Your task to perform on an android device: toggle translation in the chrome app Image 0: 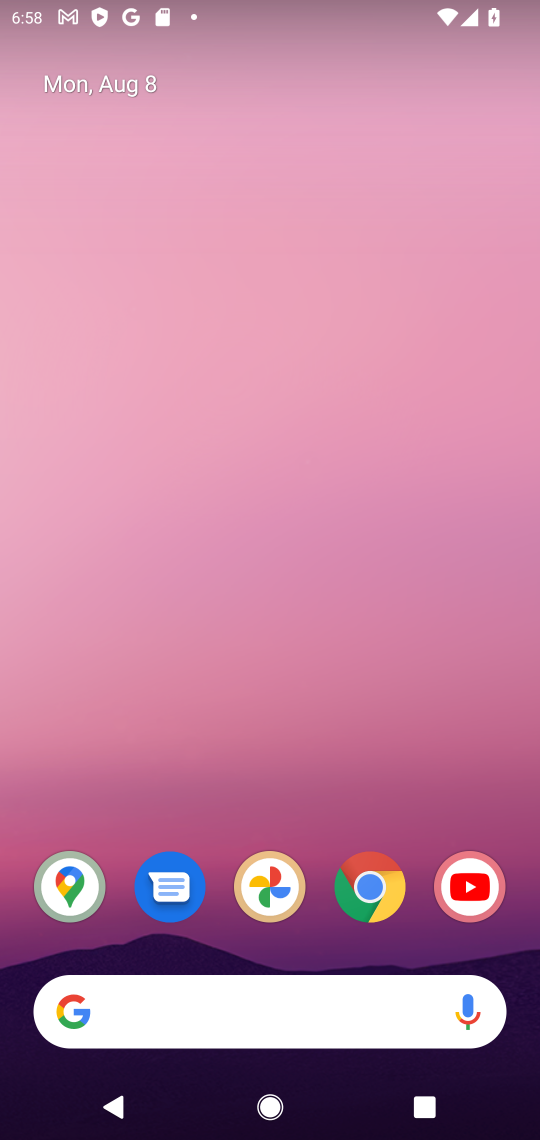
Step 0: click (351, 886)
Your task to perform on an android device: toggle translation in the chrome app Image 1: 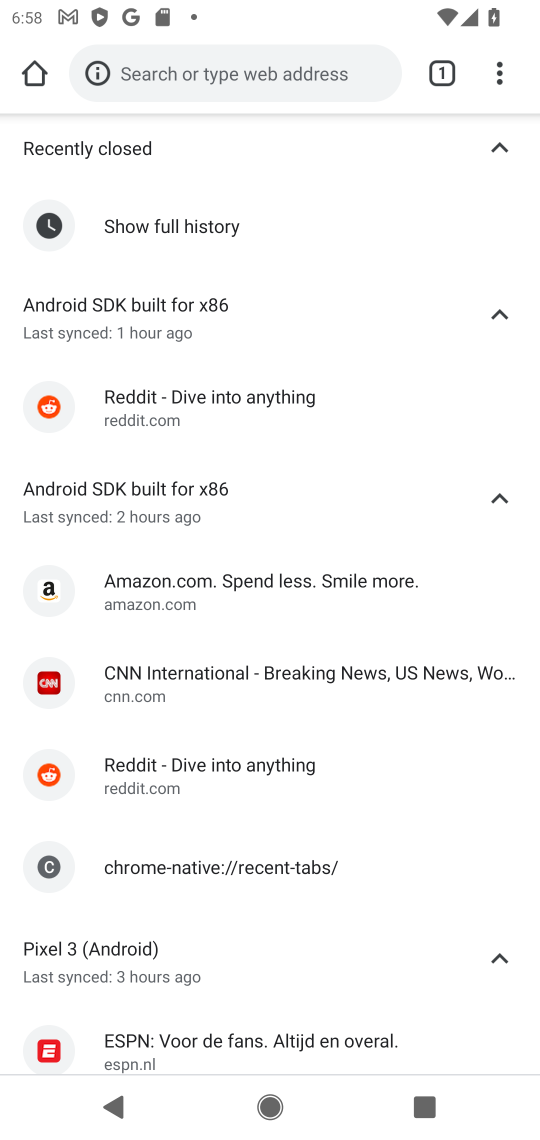
Step 1: click (500, 83)
Your task to perform on an android device: toggle translation in the chrome app Image 2: 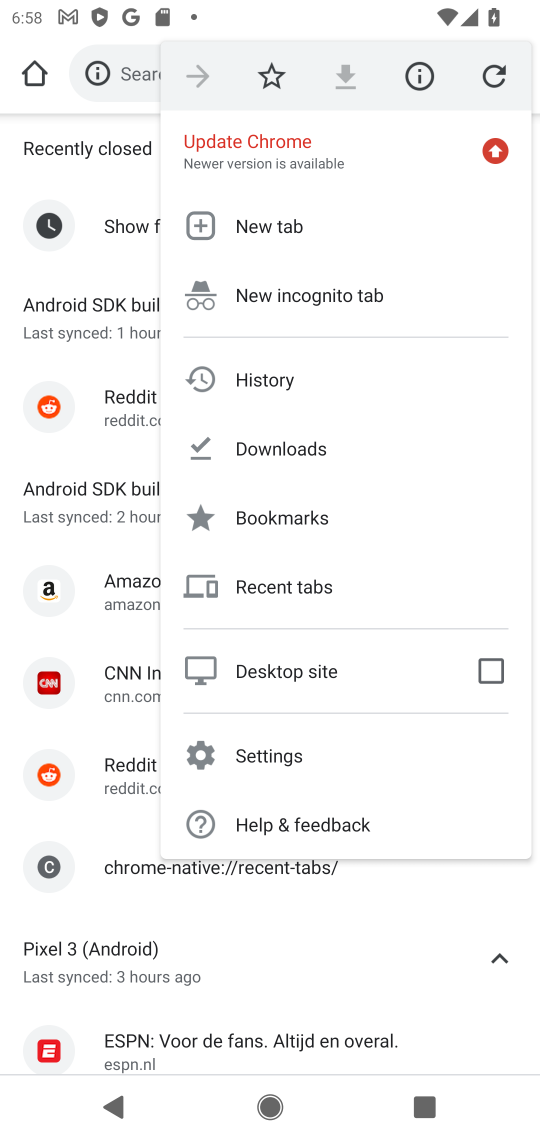
Step 2: click (334, 765)
Your task to perform on an android device: toggle translation in the chrome app Image 3: 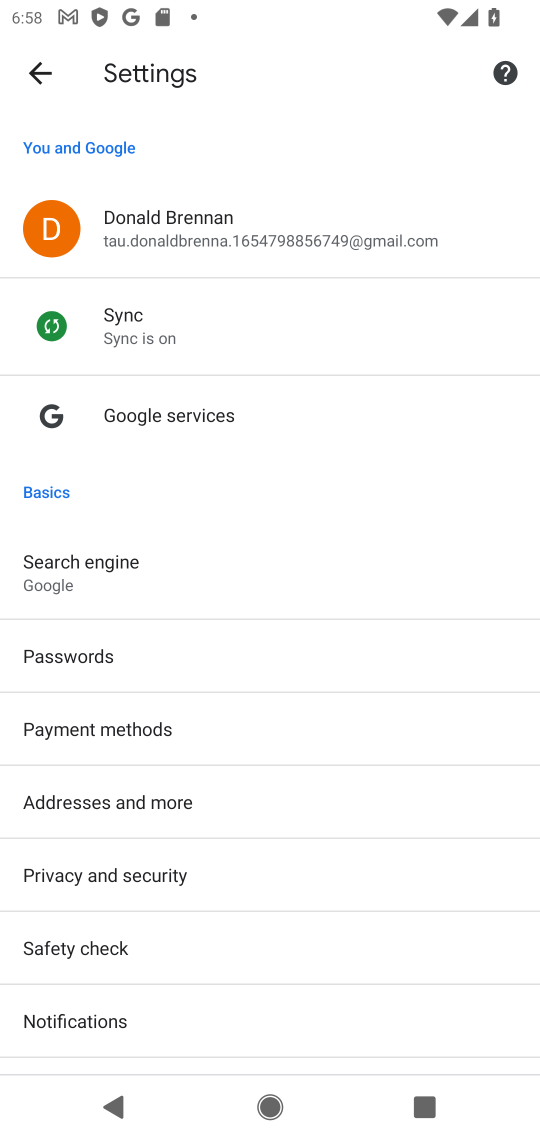
Step 3: drag from (234, 1030) to (190, 283)
Your task to perform on an android device: toggle translation in the chrome app Image 4: 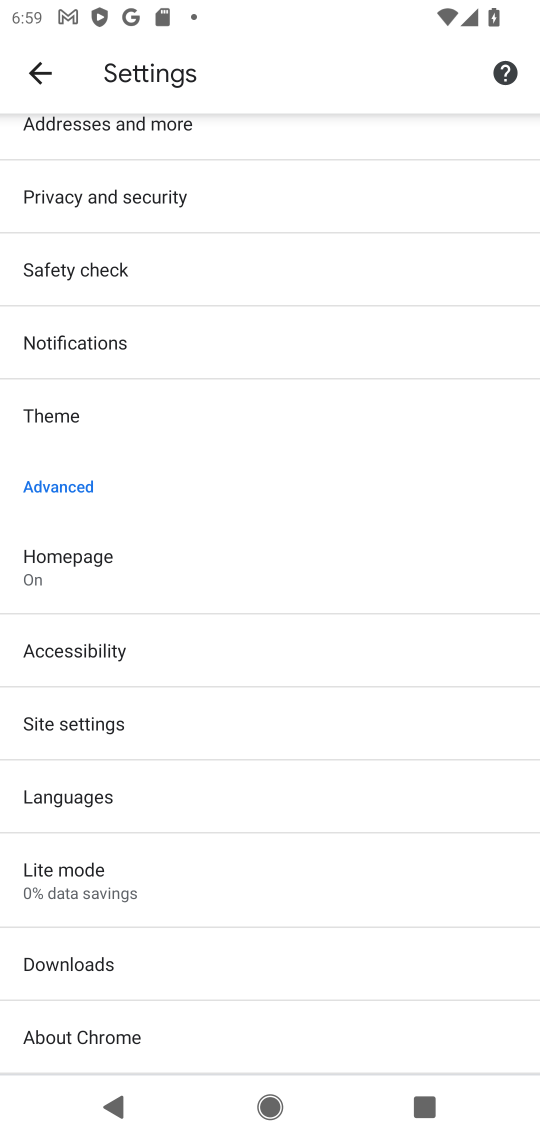
Step 4: click (230, 808)
Your task to perform on an android device: toggle translation in the chrome app Image 5: 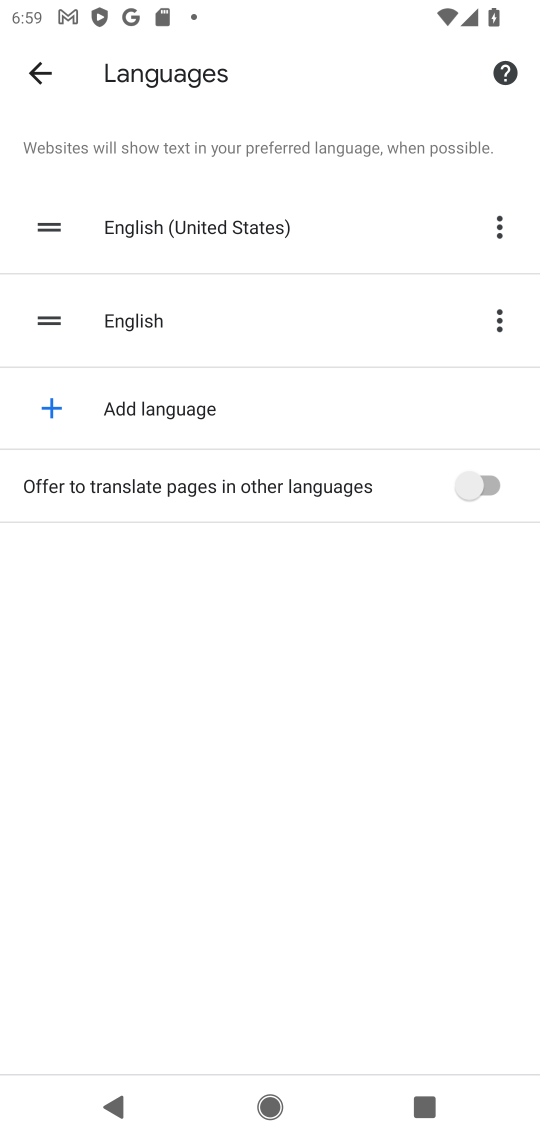
Step 5: click (496, 477)
Your task to perform on an android device: toggle translation in the chrome app Image 6: 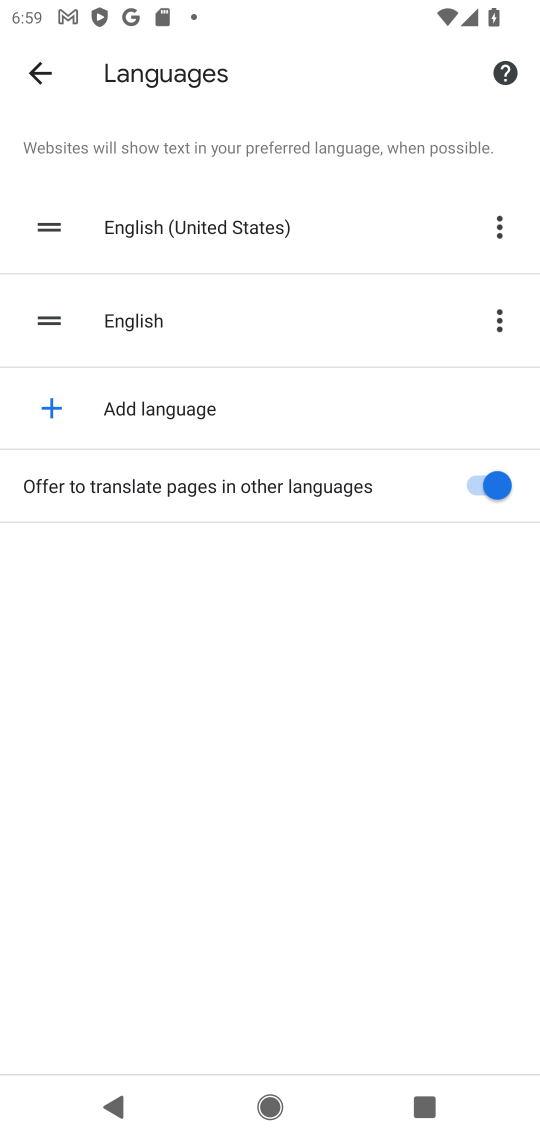
Step 6: task complete